Your task to perform on an android device: read, delete, or share a saved page in the chrome app Image 0: 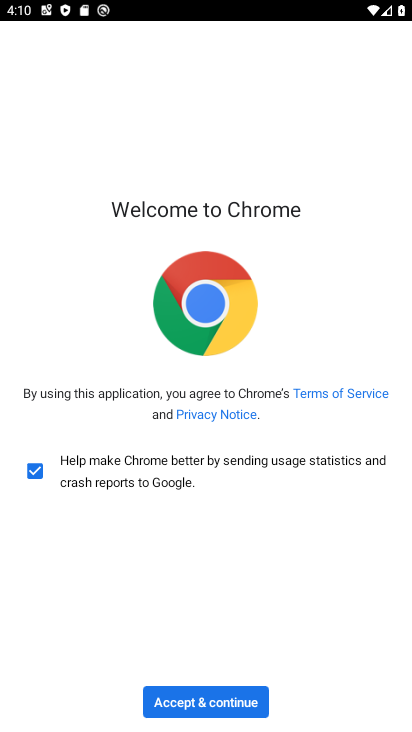
Step 0: press home button
Your task to perform on an android device: read, delete, or share a saved page in the chrome app Image 1: 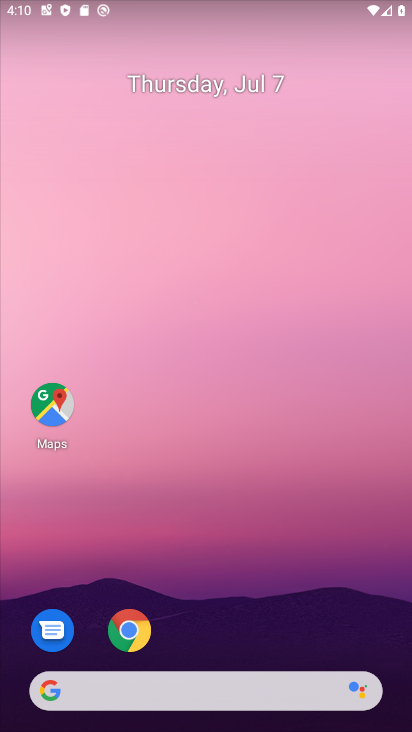
Step 1: click (132, 639)
Your task to perform on an android device: read, delete, or share a saved page in the chrome app Image 2: 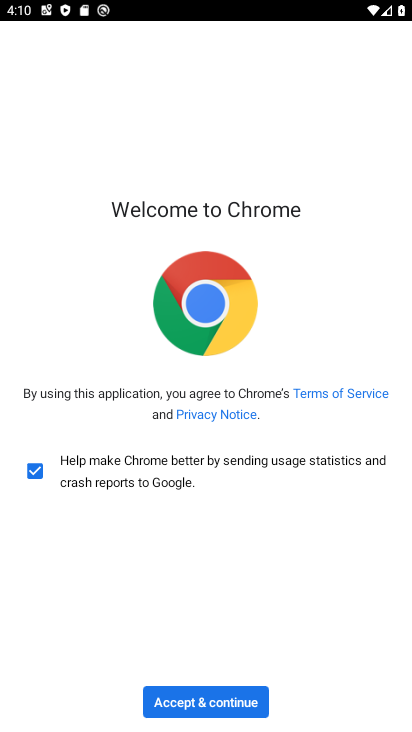
Step 2: click (199, 713)
Your task to perform on an android device: read, delete, or share a saved page in the chrome app Image 3: 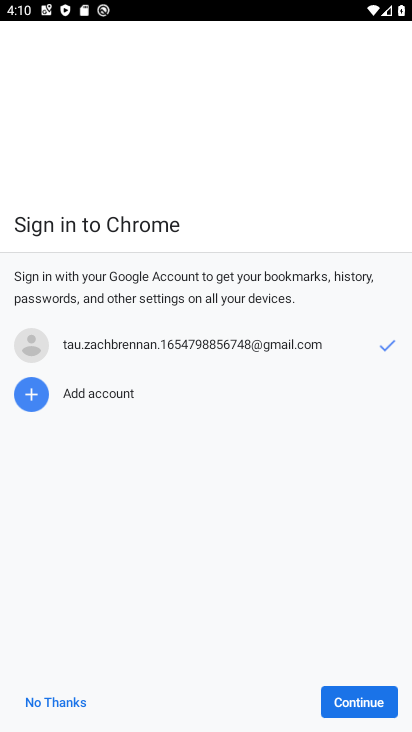
Step 3: click (365, 695)
Your task to perform on an android device: read, delete, or share a saved page in the chrome app Image 4: 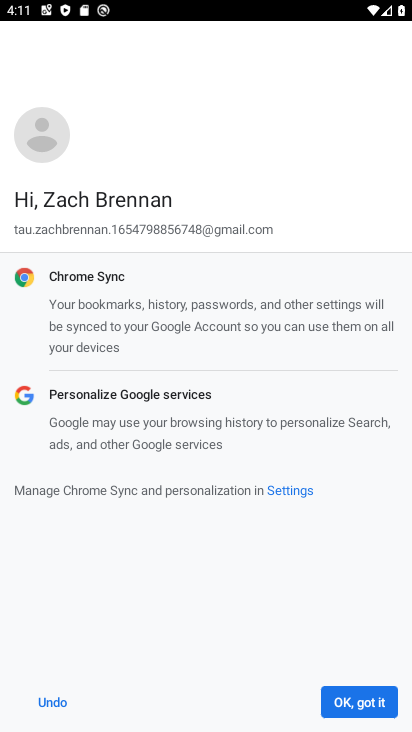
Step 4: click (381, 715)
Your task to perform on an android device: read, delete, or share a saved page in the chrome app Image 5: 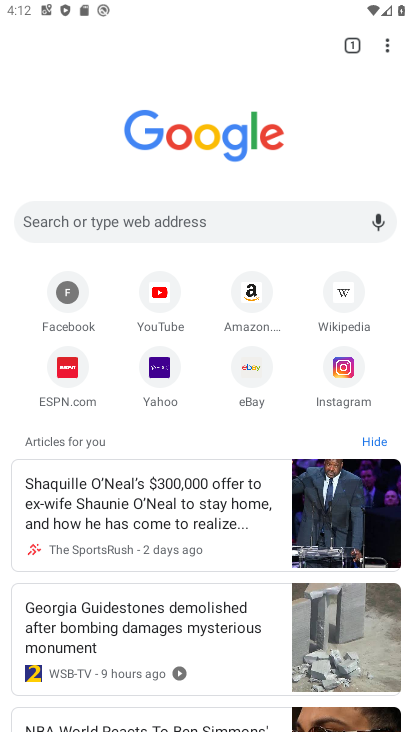
Step 5: task complete